Your task to perform on an android device: What is the news today? Image 0: 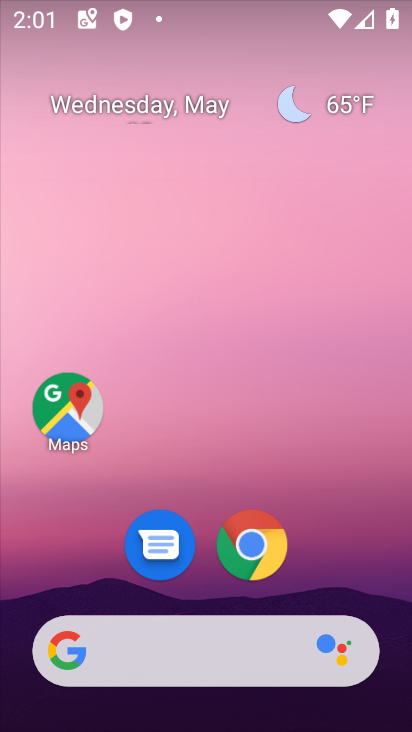
Step 0: drag from (340, 455) to (230, 102)
Your task to perform on an android device: What is the news today? Image 1: 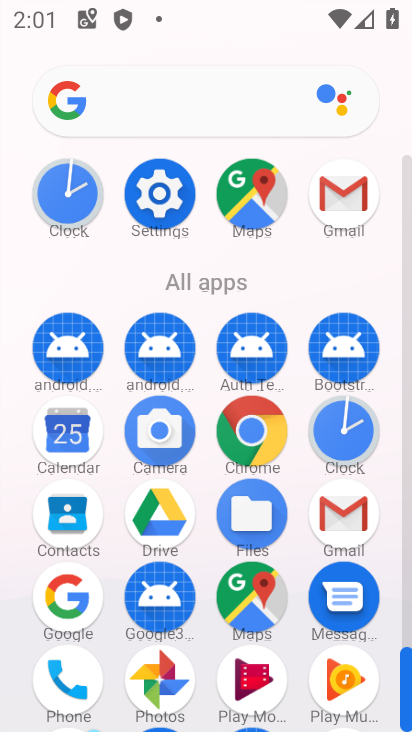
Step 1: click (63, 603)
Your task to perform on an android device: What is the news today? Image 2: 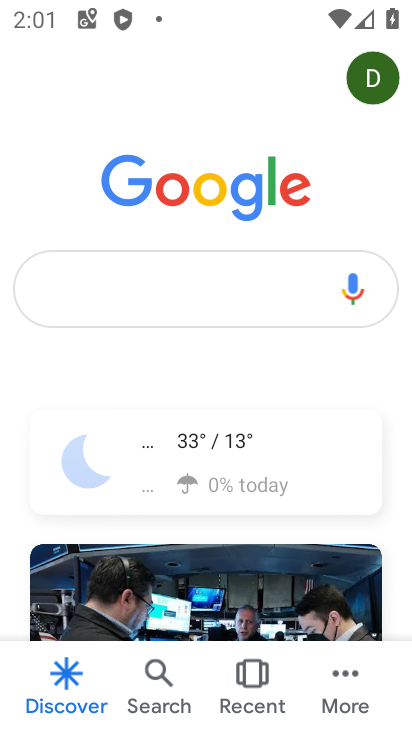
Step 2: click (198, 300)
Your task to perform on an android device: What is the news today? Image 3: 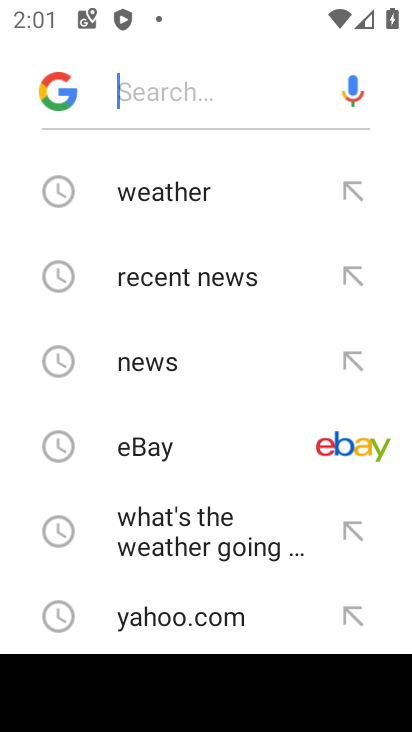
Step 3: click (201, 360)
Your task to perform on an android device: What is the news today? Image 4: 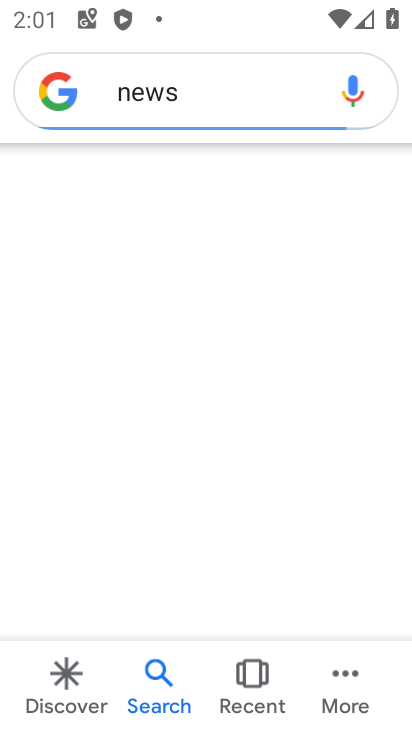
Step 4: task complete